Your task to perform on an android device: visit the assistant section in the google photos Image 0: 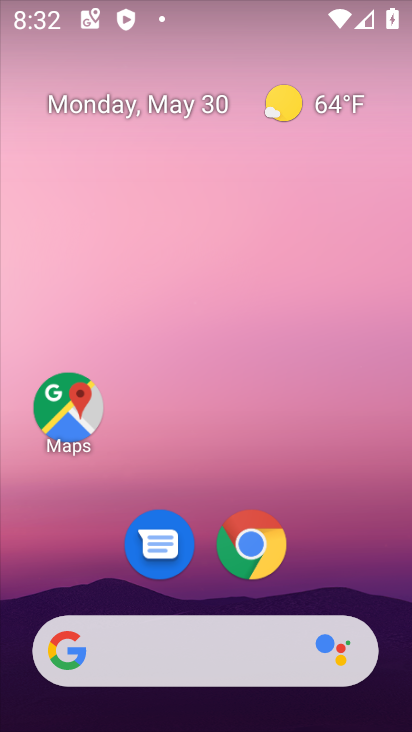
Step 0: drag from (200, 607) to (378, 468)
Your task to perform on an android device: visit the assistant section in the google photos Image 1: 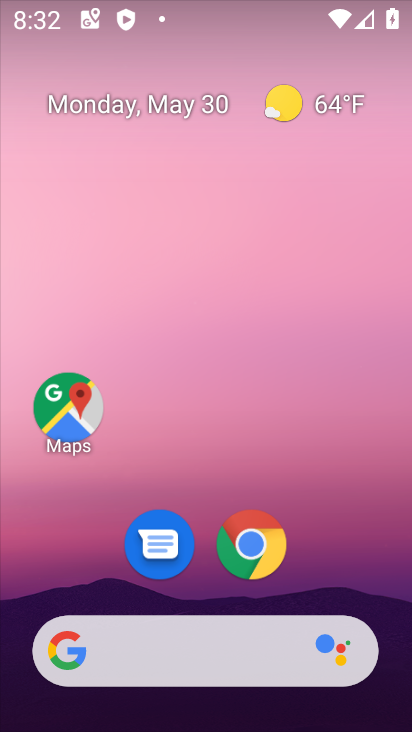
Step 1: drag from (247, 591) to (185, 3)
Your task to perform on an android device: visit the assistant section in the google photos Image 2: 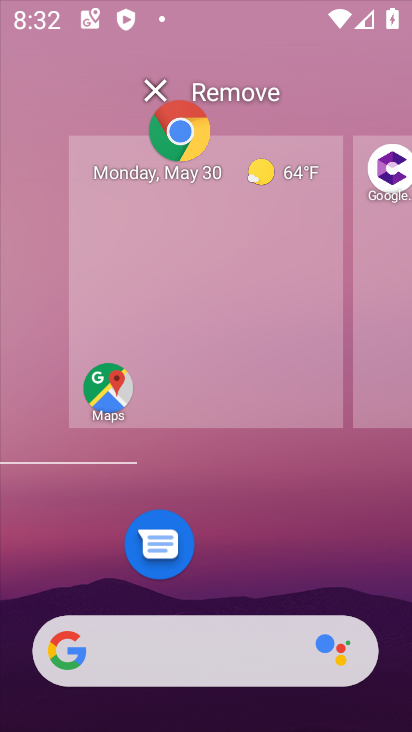
Step 2: click (234, 550)
Your task to perform on an android device: visit the assistant section in the google photos Image 3: 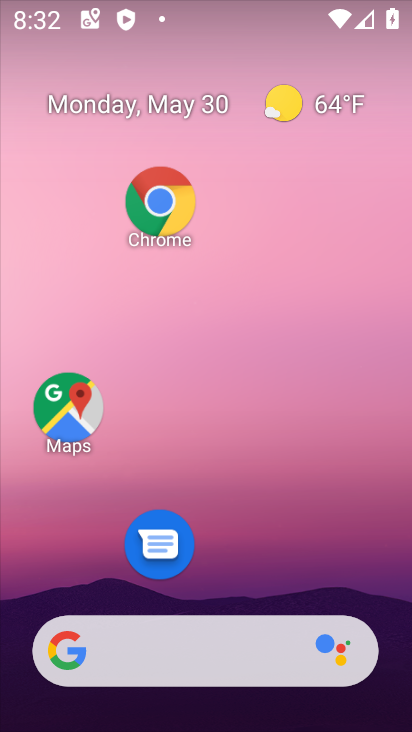
Step 3: drag from (208, 610) to (283, 31)
Your task to perform on an android device: visit the assistant section in the google photos Image 4: 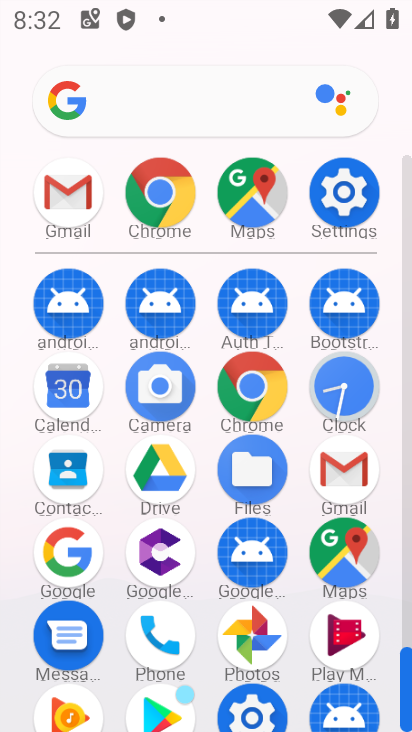
Step 4: click (264, 634)
Your task to perform on an android device: visit the assistant section in the google photos Image 5: 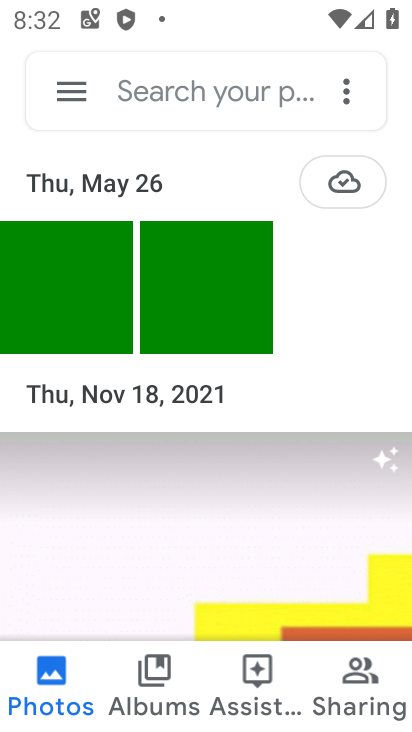
Step 5: click (262, 689)
Your task to perform on an android device: visit the assistant section in the google photos Image 6: 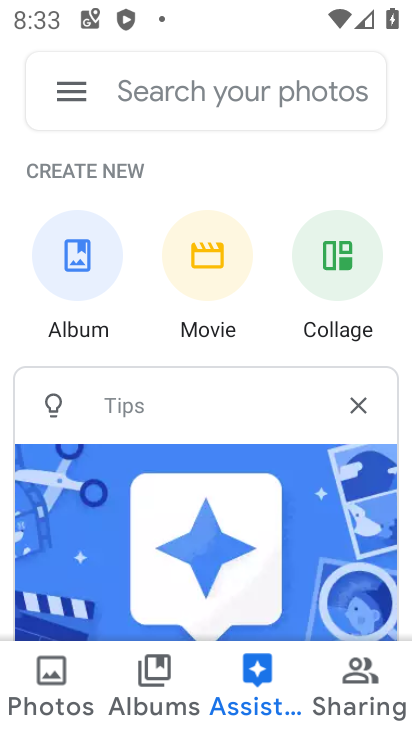
Step 6: task complete